Your task to perform on an android device: What is the recent news? Image 0: 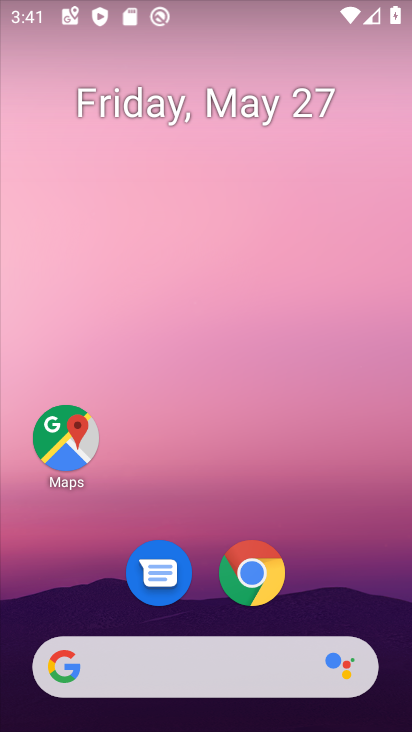
Step 0: click (166, 655)
Your task to perform on an android device: What is the recent news? Image 1: 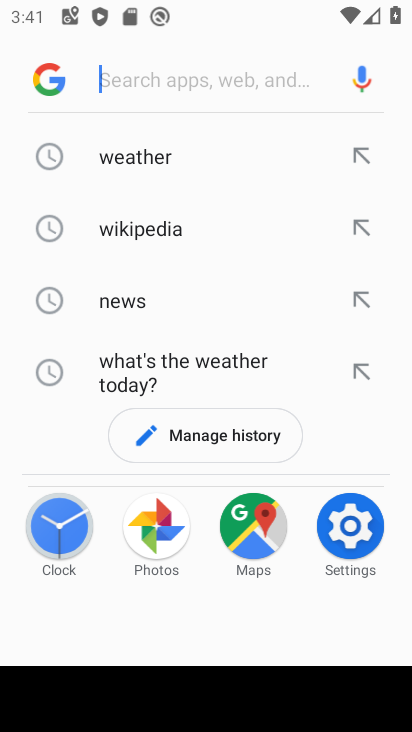
Step 1: click (118, 298)
Your task to perform on an android device: What is the recent news? Image 2: 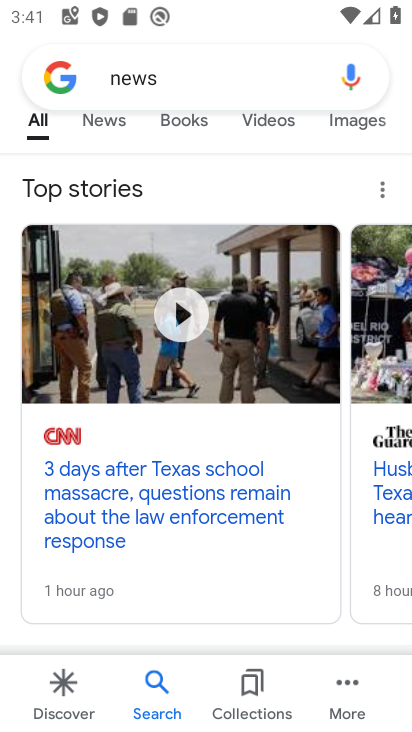
Step 2: click (108, 118)
Your task to perform on an android device: What is the recent news? Image 3: 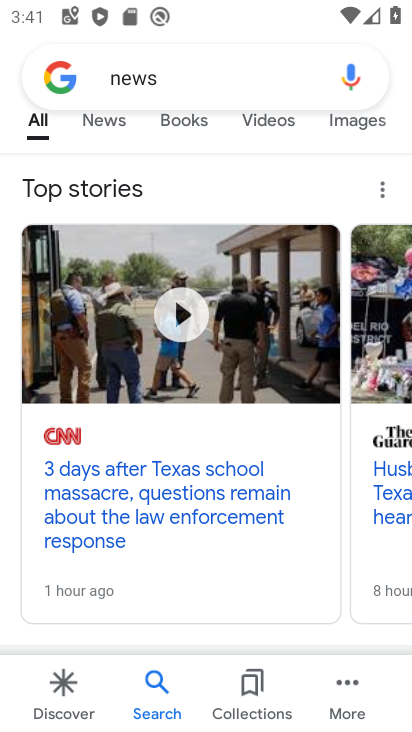
Step 3: click (105, 123)
Your task to perform on an android device: What is the recent news? Image 4: 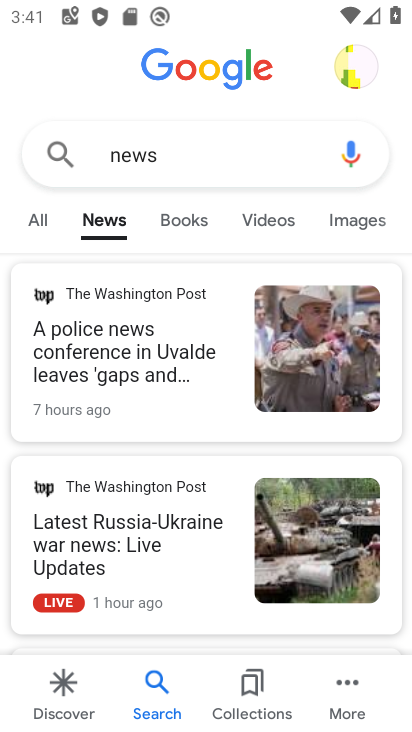
Step 4: task complete